Your task to perform on an android device: toggle airplane mode Image 0: 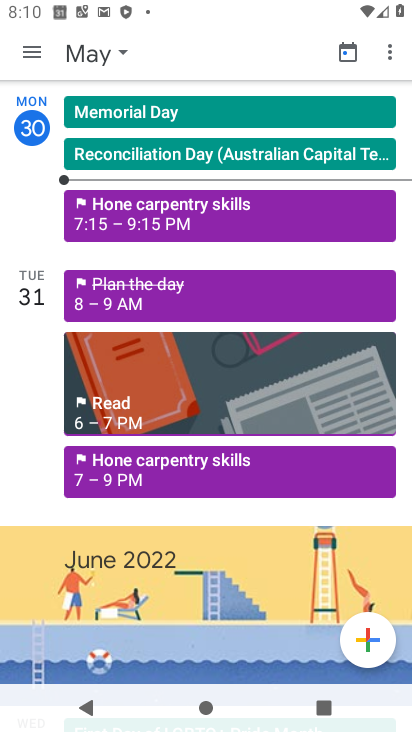
Step 0: press home button
Your task to perform on an android device: toggle airplane mode Image 1: 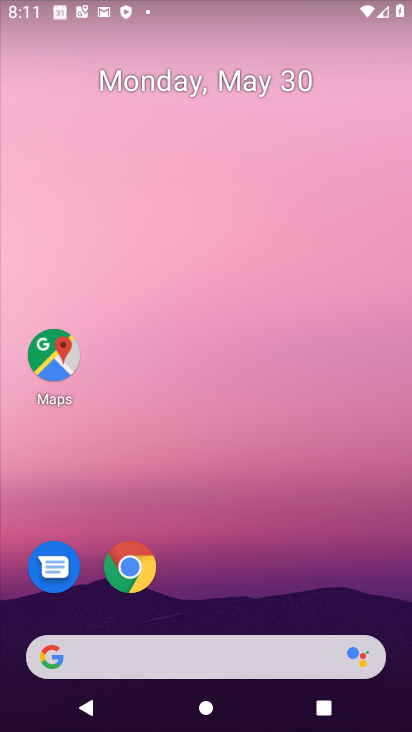
Step 1: drag from (255, 595) to (256, 165)
Your task to perform on an android device: toggle airplane mode Image 2: 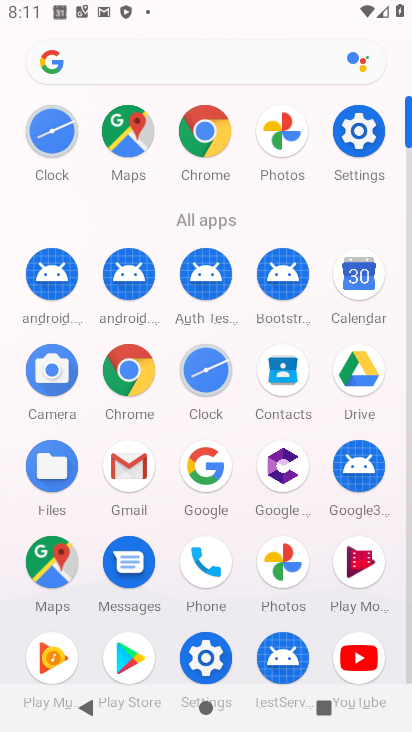
Step 2: click (359, 145)
Your task to perform on an android device: toggle airplane mode Image 3: 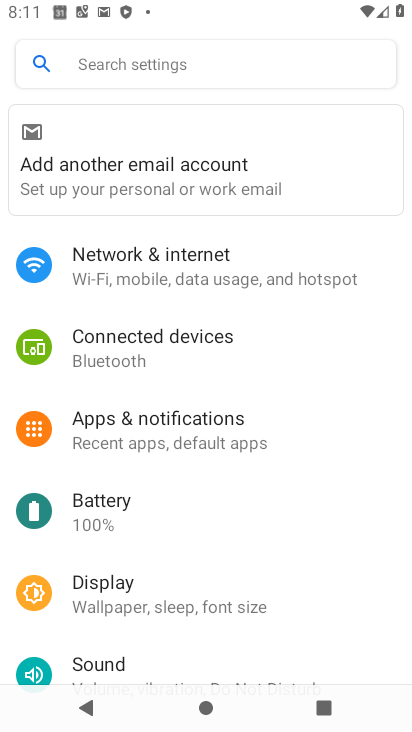
Step 3: click (214, 266)
Your task to perform on an android device: toggle airplane mode Image 4: 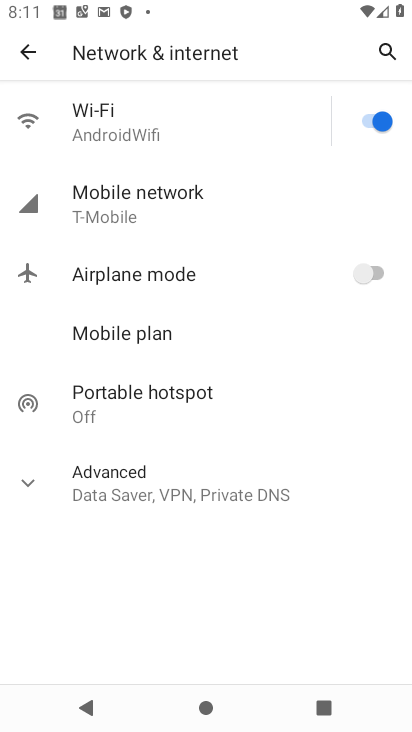
Step 4: click (393, 275)
Your task to perform on an android device: toggle airplane mode Image 5: 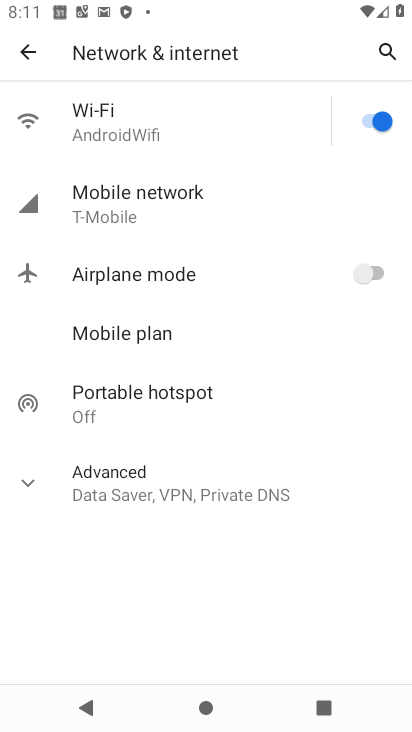
Step 5: click (393, 275)
Your task to perform on an android device: toggle airplane mode Image 6: 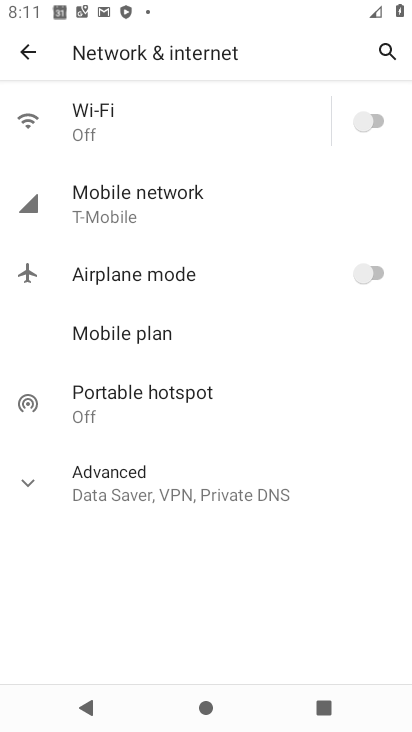
Step 6: task complete